Your task to perform on an android device: open sync settings in chrome Image 0: 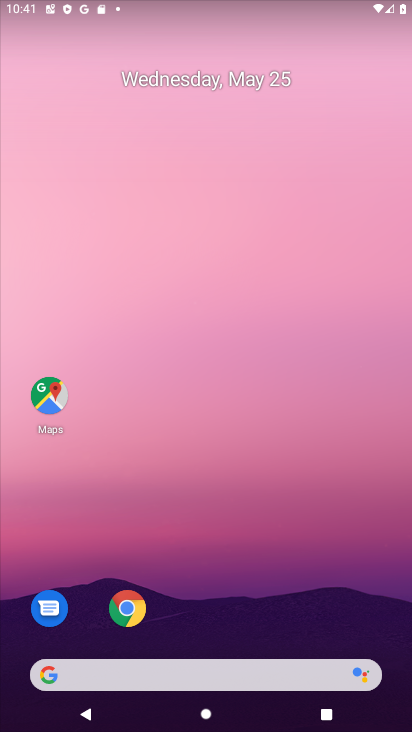
Step 0: click (137, 609)
Your task to perform on an android device: open sync settings in chrome Image 1: 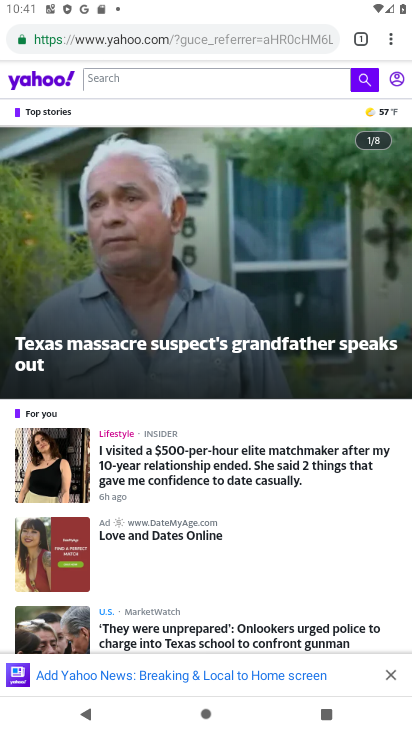
Step 1: click (390, 42)
Your task to perform on an android device: open sync settings in chrome Image 2: 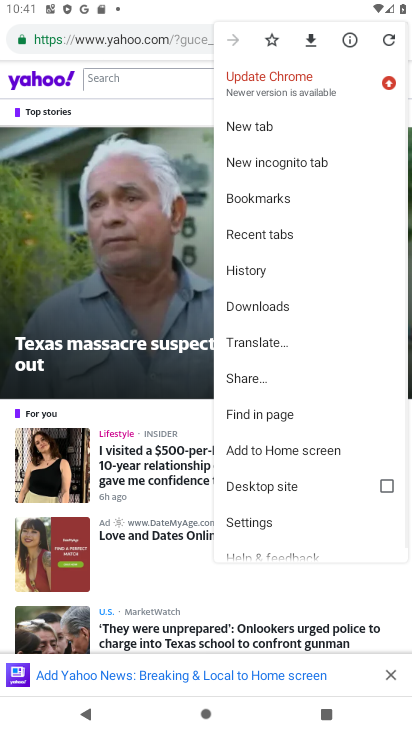
Step 2: click (255, 516)
Your task to perform on an android device: open sync settings in chrome Image 3: 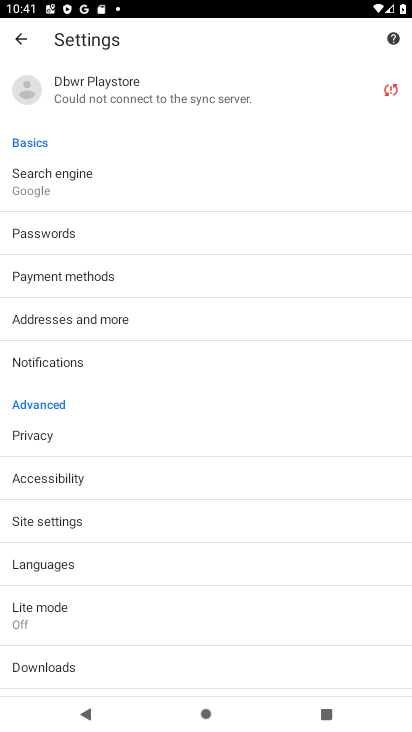
Step 3: click (98, 96)
Your task to perform on an android device: open sync settings in chrome Image 4: 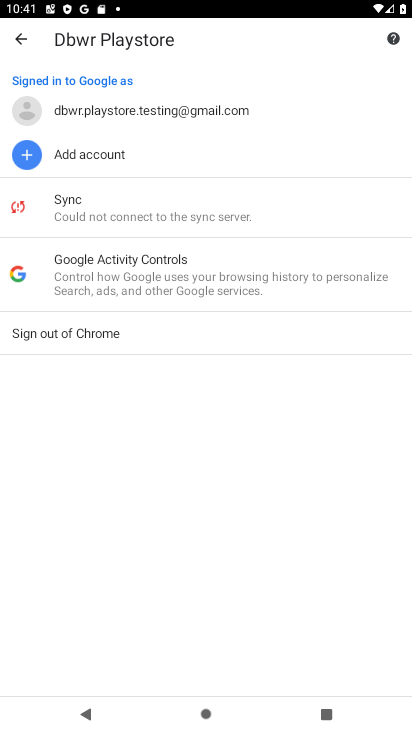
Step 4: click (66, 193)
Your task to perform on an android device: open sync settings in chrome Image 5: 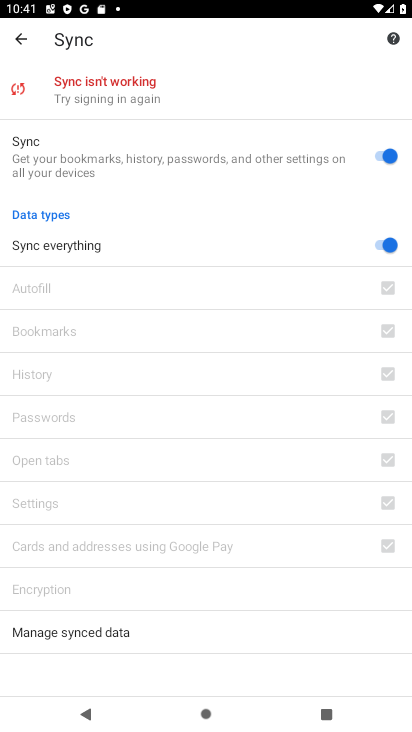
Step 5: task complete